Your task to perform on an android device: snooze an email in the gmail app Image 0: 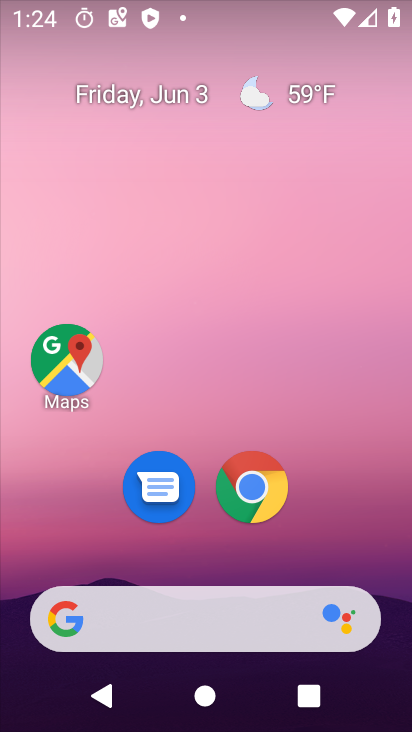
Step 0: drag from (220, 392) to (249, 1)
Your task to perform on an android device: snooze an email in the gmail app Image 1: 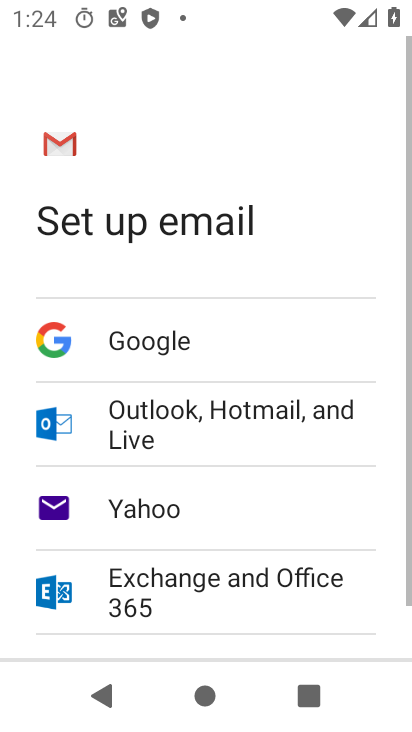
Step 1: press home button
Your task to perform on an android device: snooze an email in the gmail app Image 2: 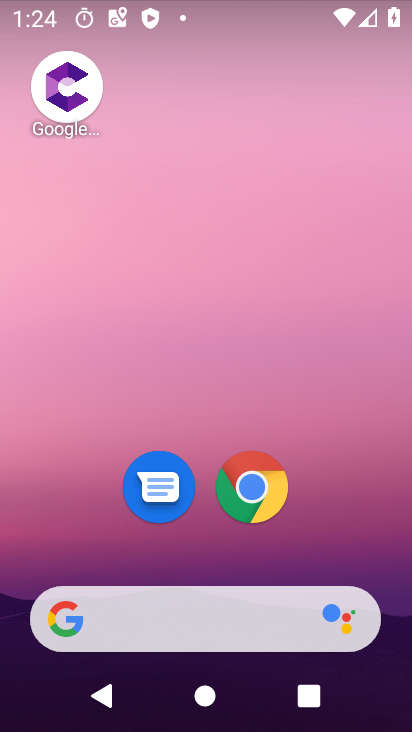
Step 2: drag from (326, 385) to (333, 0)
Your task to perform on an android device: snooze an email in the gmail app Image 3: 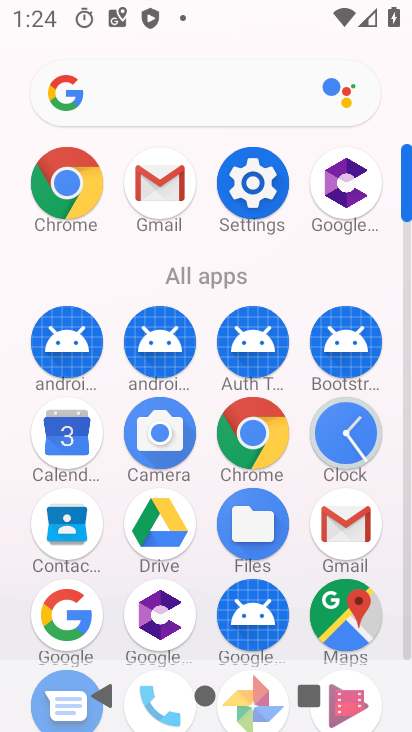
Step 3: click (161, 171)
Your task to perform on an android device: snooze an email in the gmail app Image 4: 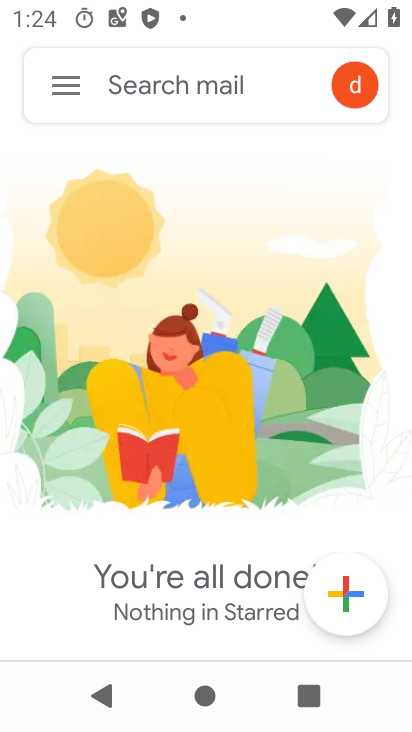
Step 4: task complete